Your task to perform on an android device: Is it going to rain this weekend? Image 0: 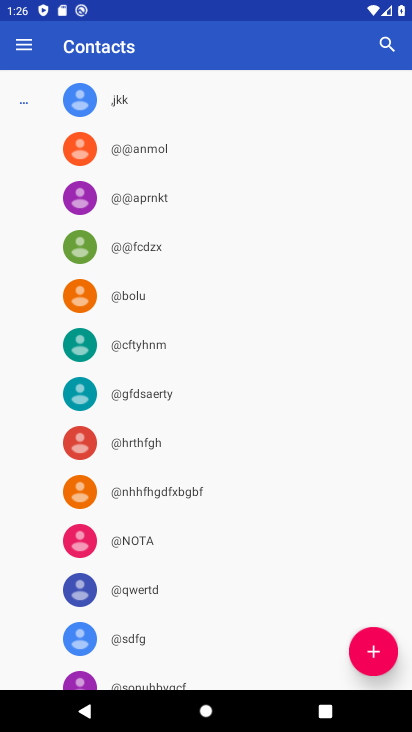
Step 0: press back button
Your task to perform on an android device: Is it going to rain this weekend? Image 1: 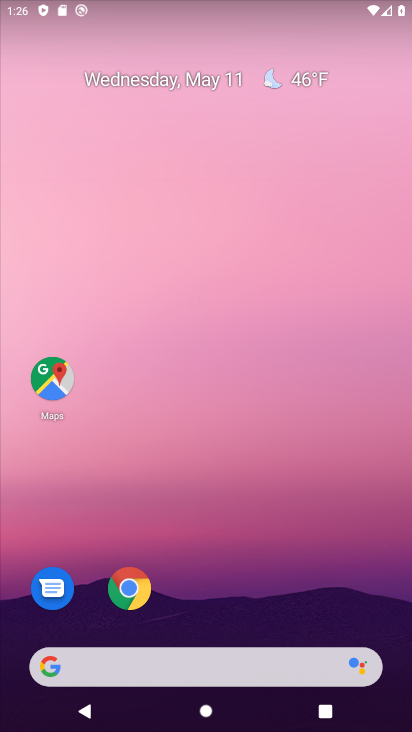
Step 1: click (296, 114)
Your task to perform on an android device: Is it going to rain this weekend? Image 2: 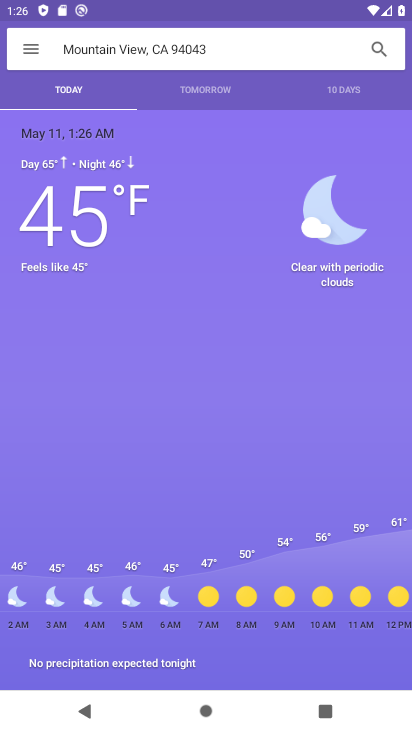
Step 2: click (338, 91)
Your task to perform on an android device: Is it going to rain this weekend? Image 3: 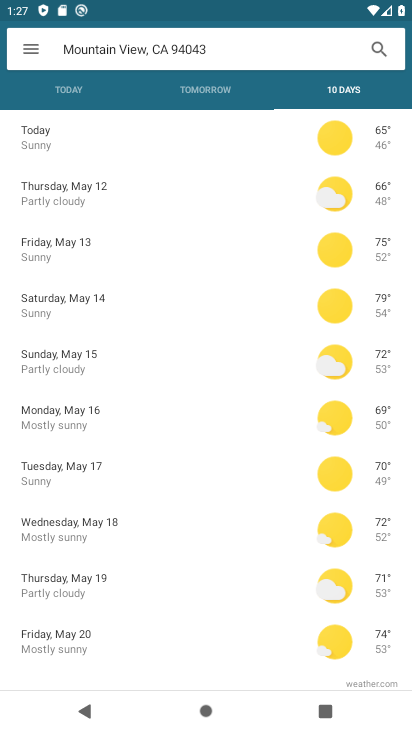
Step 3: task complete